Your task to perform on an android device: turn off smart reply in the gmail app Image 0: 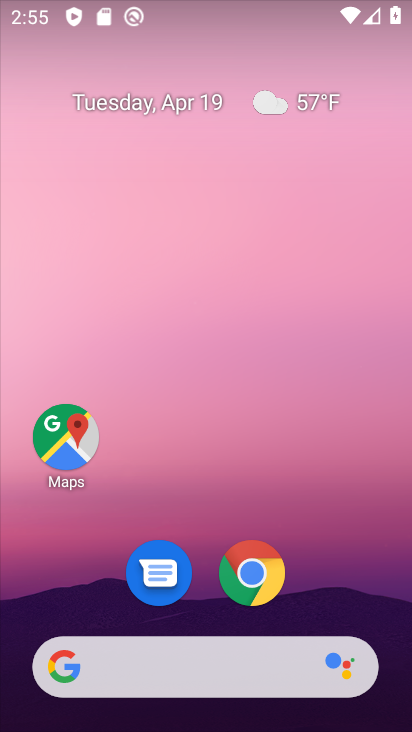
Step 0: drag from (376, 612) to (380, 0)
Your task to perform on an android device: turn off smart reply in the gmail app Image 1: 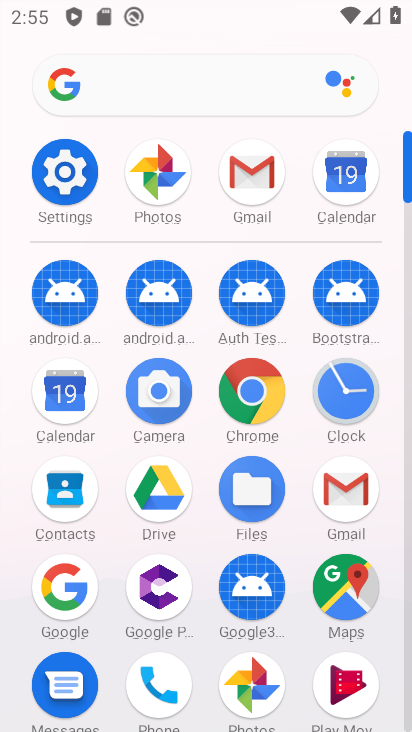
Step 1: click (245, 186)
Your task to perform on an android device: turn off smart reply in the gmail app Image 2: 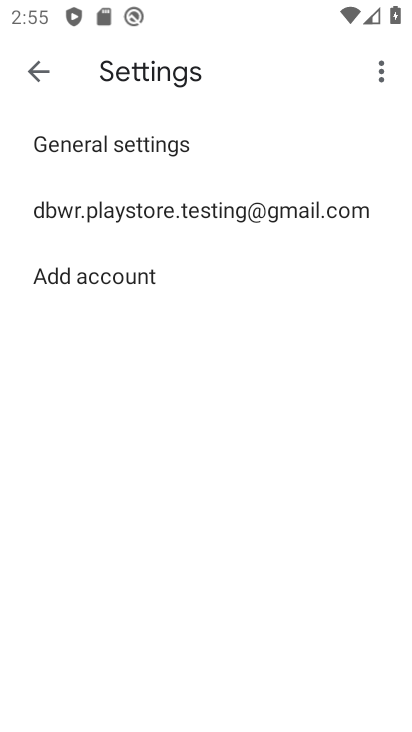
Step 2: click (192, 213)
Your task to perform on an android device: turn off smart reply in the gmail app Image 3: 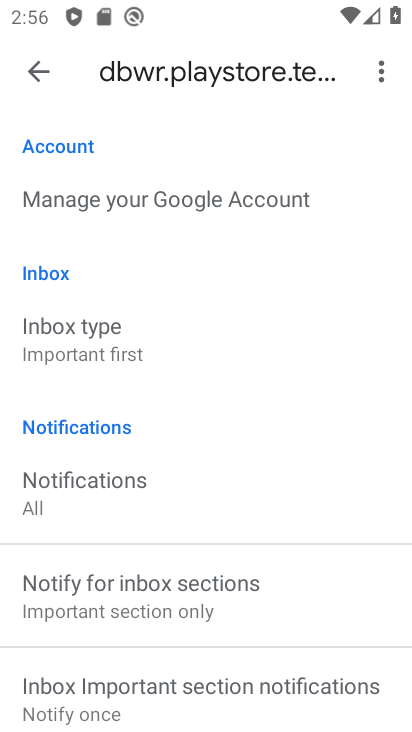
Step 3: drag from (378, 615) to (345, 149)
Your task to perform on an android device: turn off smart reply in the gmail app Image 4: 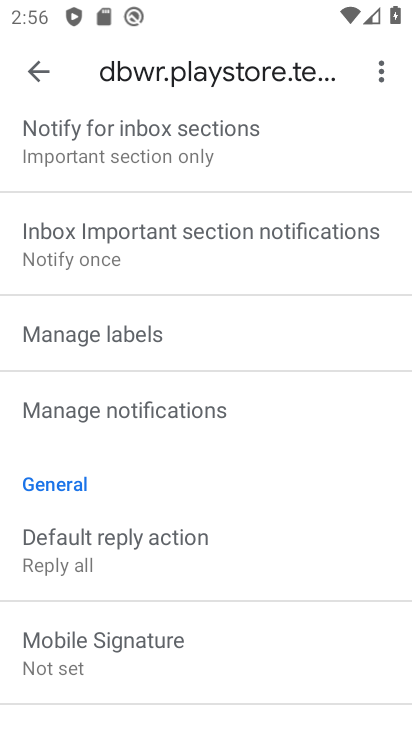
Step 4: drag from (360, 518) to (321, 173)
Your task to perform on an android device: turn off smart reply in the gmail app Image 5: 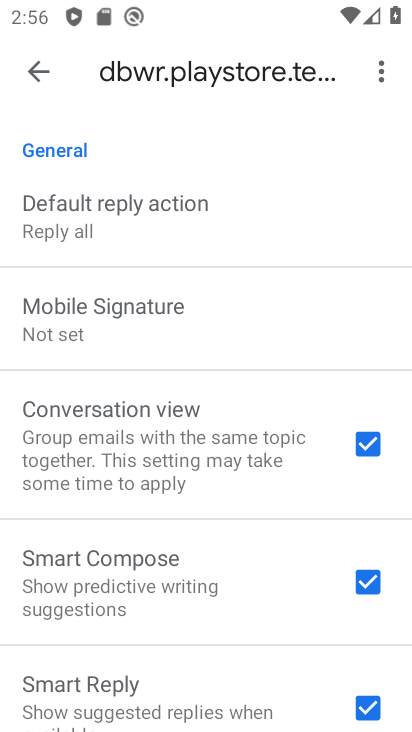
Step 5: drag from (224, 595) to (224, 246)
Your task to perform on an android device: turn off smart reply in the gmail app Image 6: 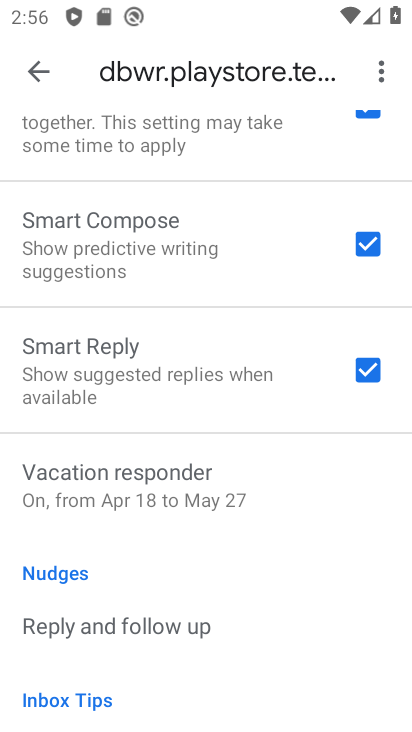
Step 6: click (353, 376)
Your task to perform on an android device: turn off smart reply in the gmail app Image 7: 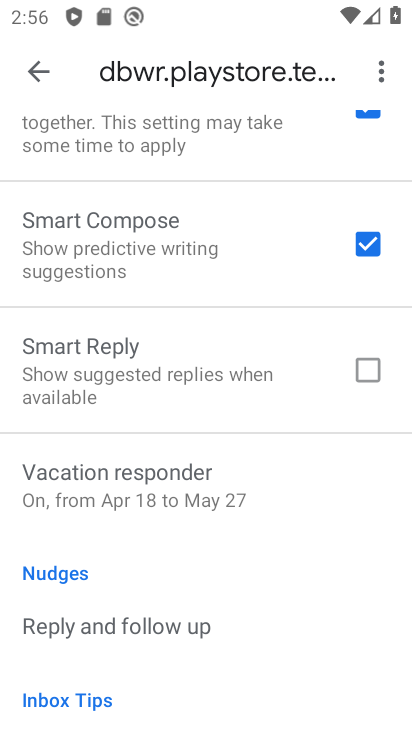
Step 7: task complete